Your task to perform on an android device: Go to ESPN.com Image 0: 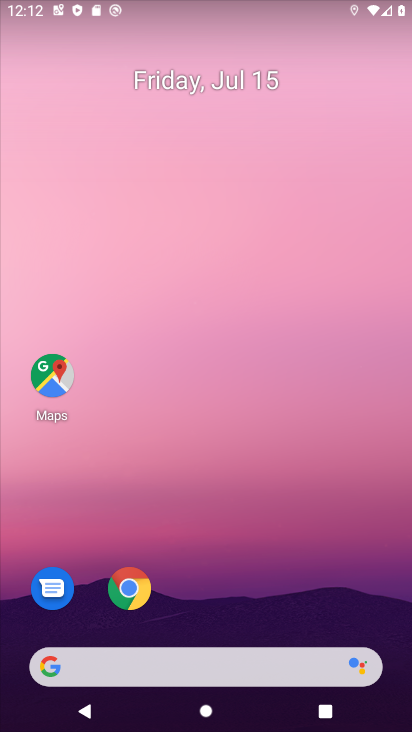
Step 0: click (212, 665)
Your task to perform on an android device: Go to ESPN.com Image 1: 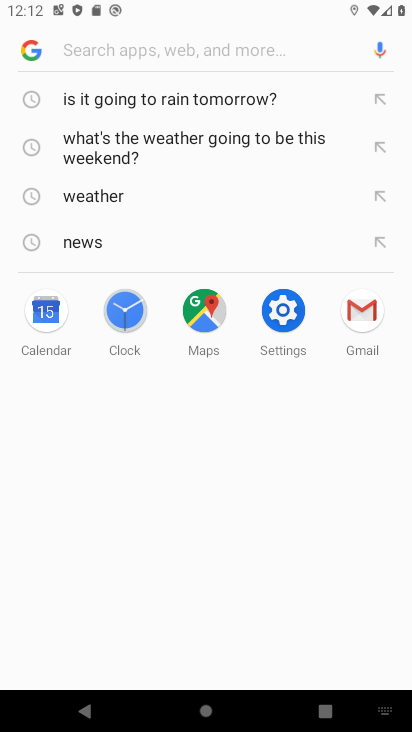
Step 1: type "espn.com"
Your task to perform on an android device: Go to ESPN.com Image 2: 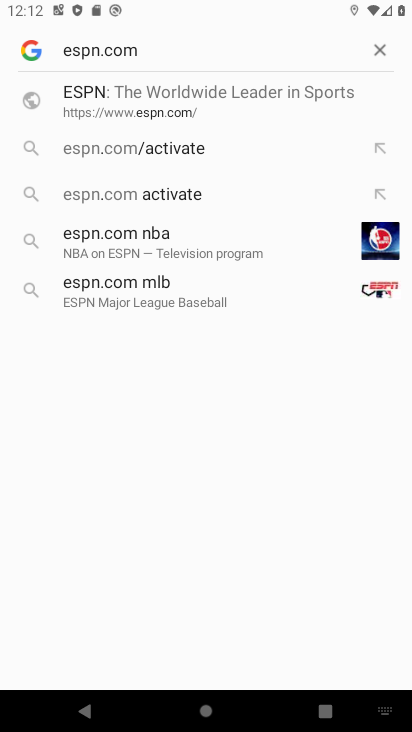
Step 2: click (191, 92)
Your task to perform on an android device: Go to ESPN.com Image 3: 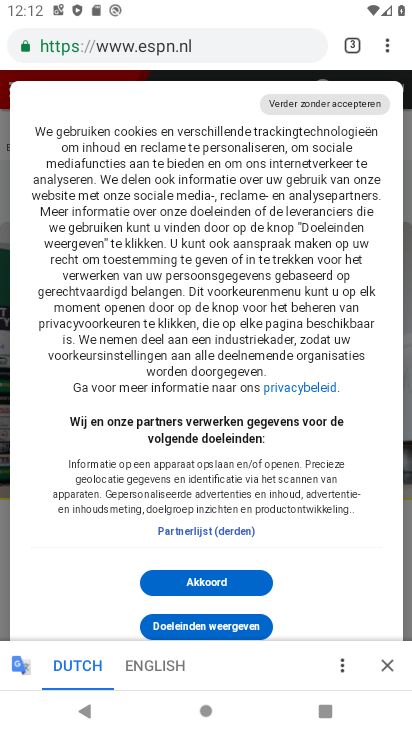
Step 3: task complete